Your task to perform on an android device: change the upload size in google photos Image 0: 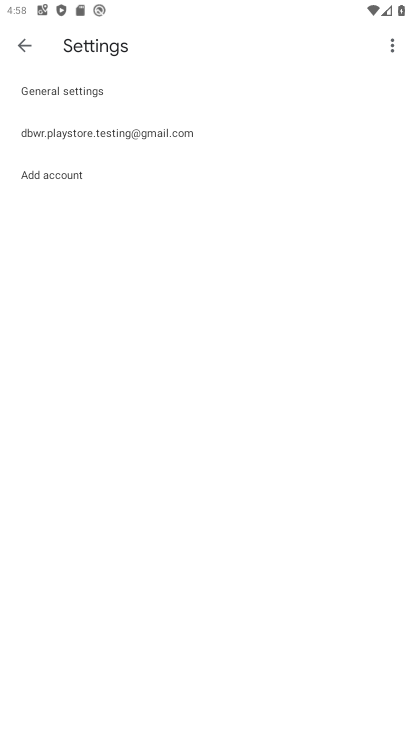
Step 0: press home button
Your task to perform on an android device: change the upload size in google photos Image 1: 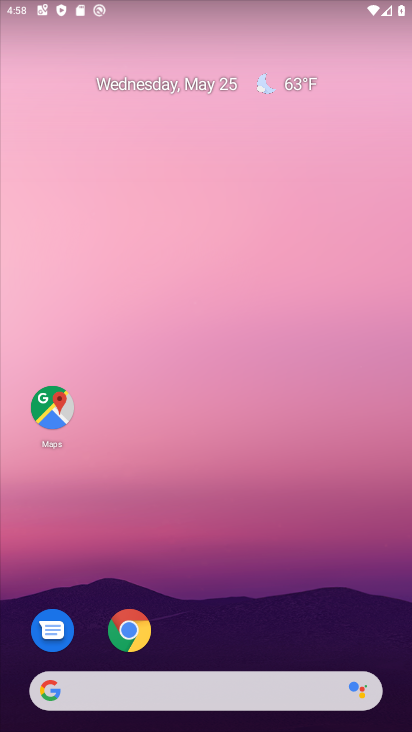
Step 1: drag from (195, 602) to (194, 129)
Your task to perform on an android device: change the upload size in google photos Image 2: 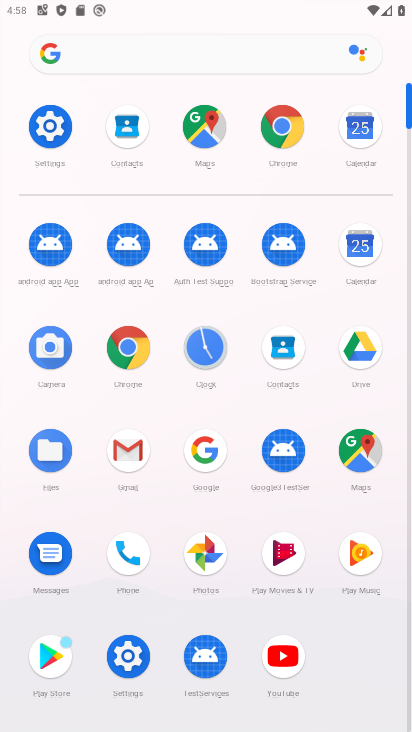
Step 2: click (201, 558)
Your task to perform on an android device: change the upload size in google photos Image 3: 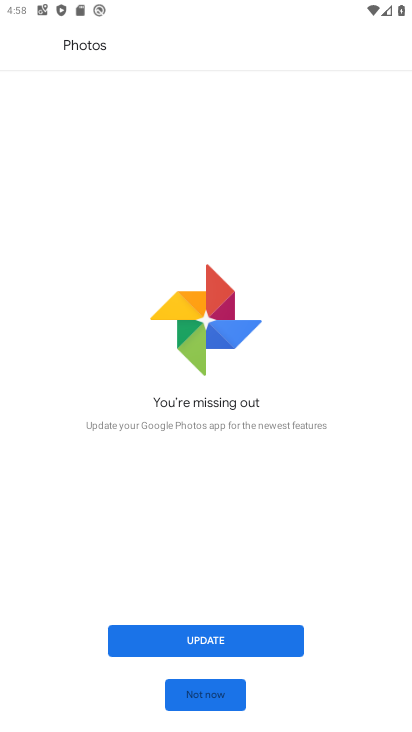
Step 3: click (196, 692)
Your task to perform on an android device: change the upload size in google photos Image 4: 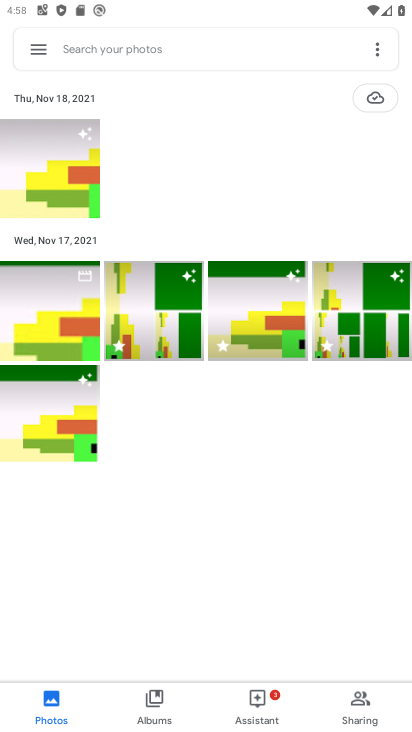
Step 4: click (33, 47)
Your task to perform on an android device: change the upload size in google photos Image 5: 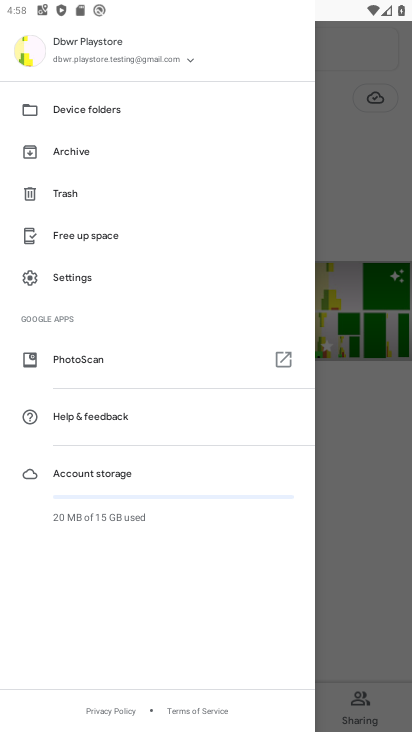
Step 5: click (77, 269)
Your task to perform on an android device: change the upload size in google photos Image 6: 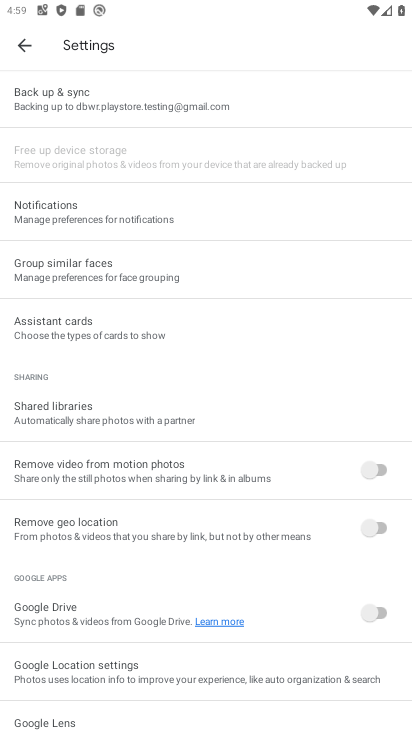
Step 6: click (79, 105)
Your task to perform on an android device: change the upload size in google photos Image 7: 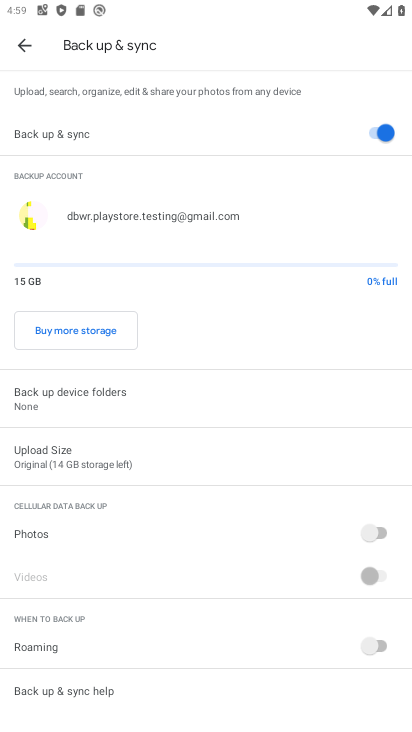
Step 7: click (94, 466)
Your task to perform on an android device: change the upload size in google photos Image 8: 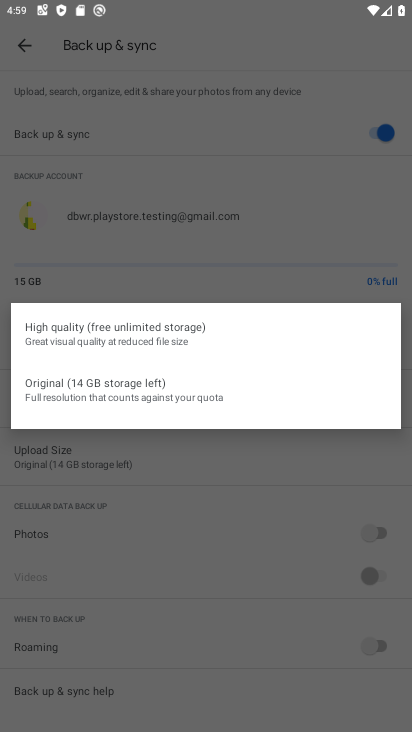
Step 8: click (53, 326)
Your task to perform on an android device: change the upload size in google photos Image 9: 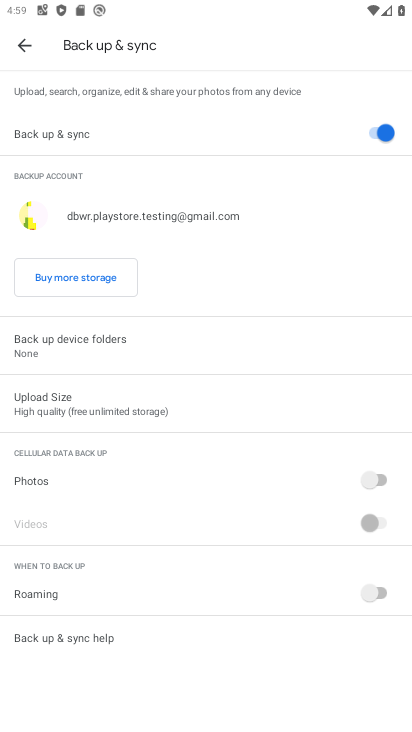
Step 9: task complete